Your task to perform on an android device: Open the map Image 0: 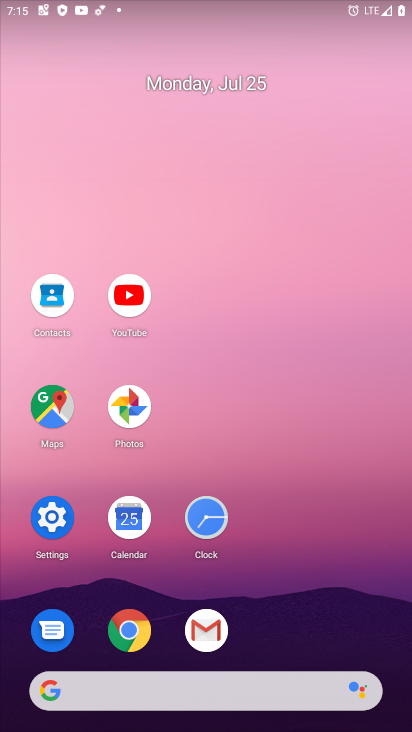
Step 0: click (56, 407)
Your task to perform on an android device: Open the map Image 1: 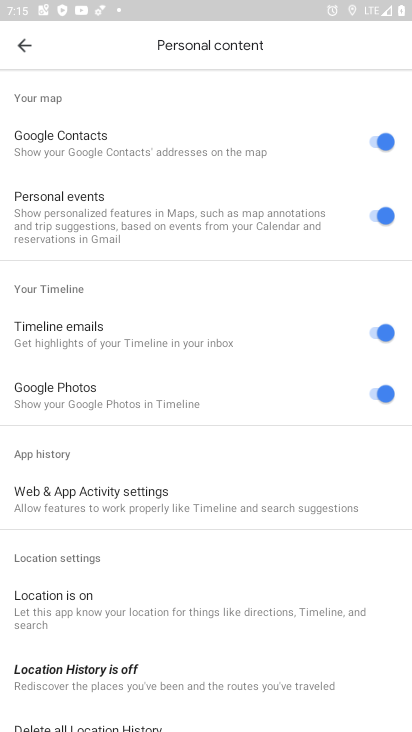
Step 1: task complete